Your task to perform on an android device: What's the weather? Image 0: 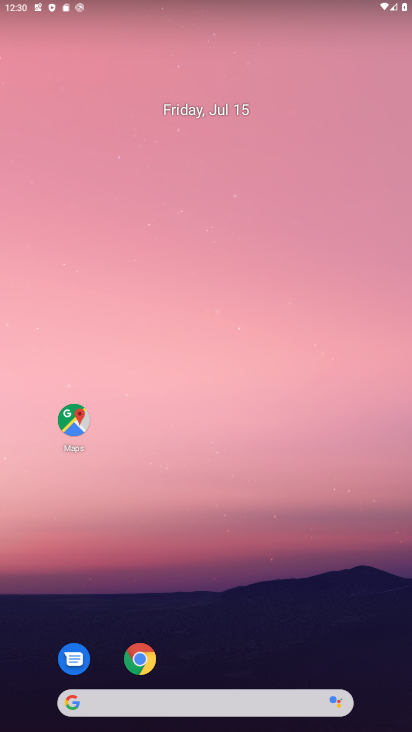
Step 0: drag from (212, 641) to (216, 199)
Your task to perform on an android device: What's the weather? Image 1: 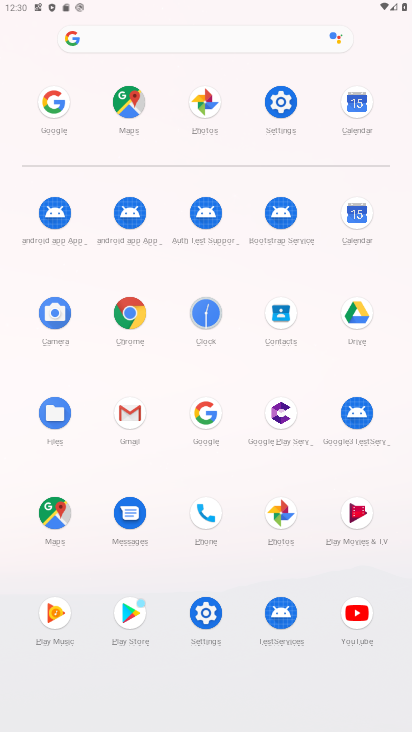
Step 1: click (60, 111)
Your task to perform on an android device: What's the weather? Image 2: 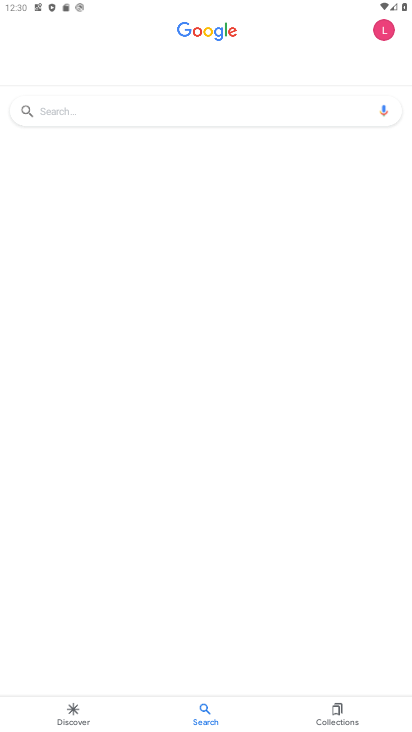
Step 2: click (132, 117)
Your task to perform on an android device: What's the weather? Image 3: 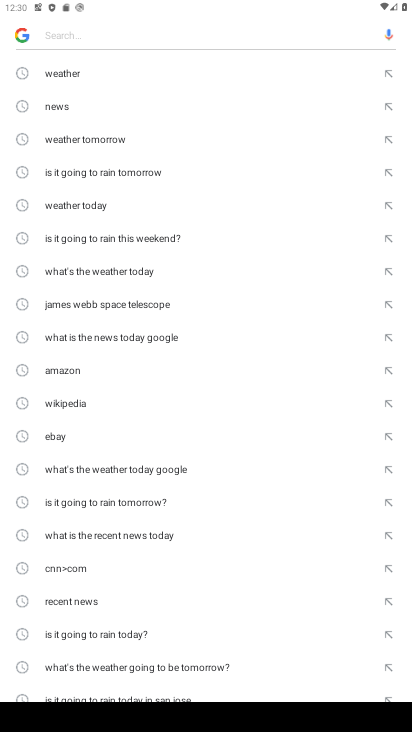
Step 3: click (82, 75)
Your task to perform on an android device: What's the weather? Image 4: 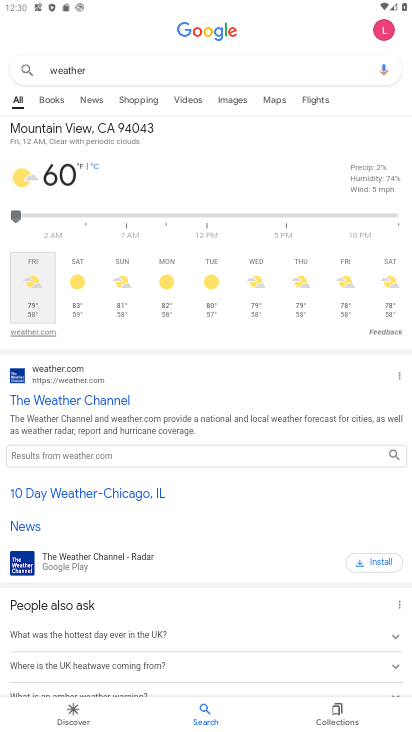
Step 4: task complete